Your task to perform on an android device: delete the emails in spam in the gmail app Image 0: 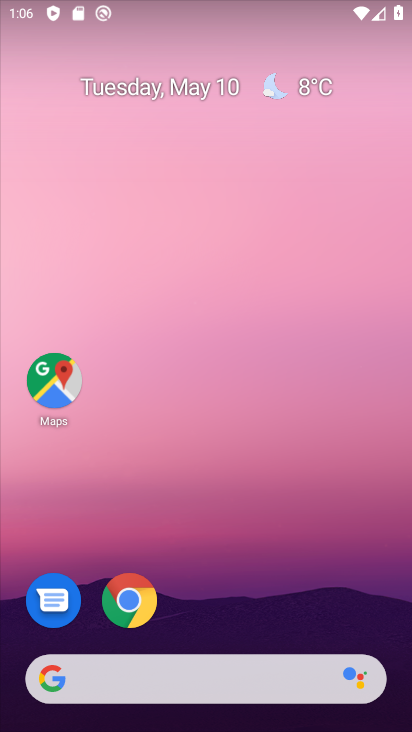
Step 0: drag from (219, 625) to (226, 106)
Your task to perform on an android device: delete the emails in spam in the gmail app Image 1: 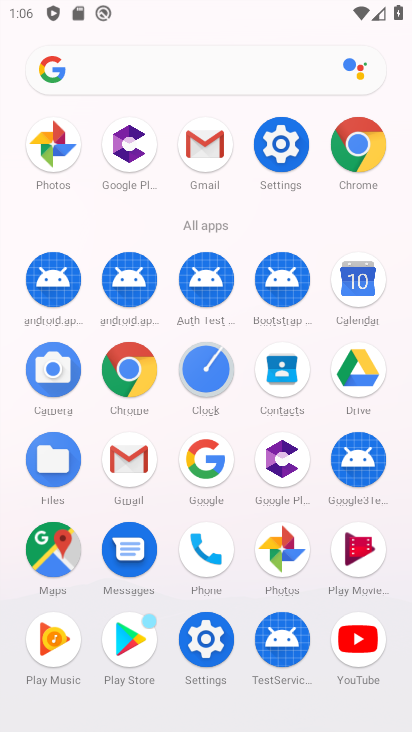
Step 1: click (213, 131)
Your task to perform on an android device: delete the emails in spam in the gmail app Image 2: 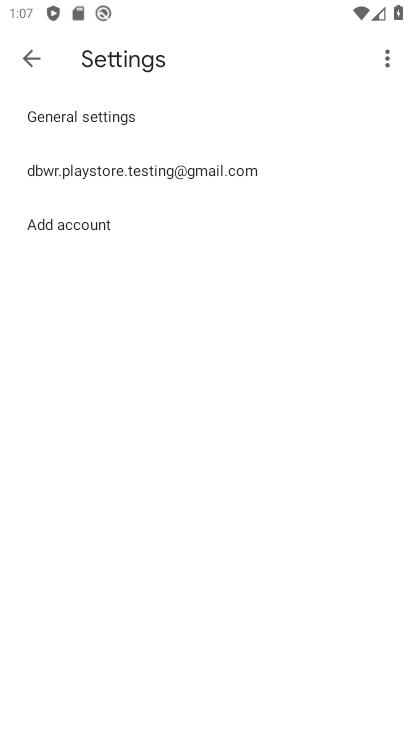
Step 2: click (34, 61)
Your task to perform on an android device: delete the emails in spam in the gmail app Image 3: 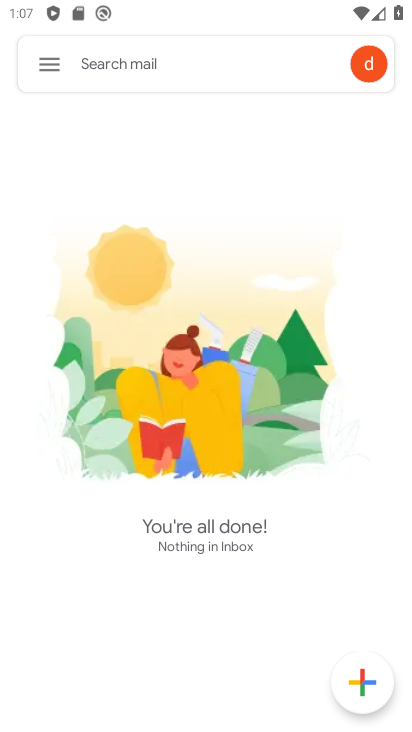
Step 3: click (50, 58)
Your task to perform on an android device: delete the emails in spam in the gmail app Image 4: 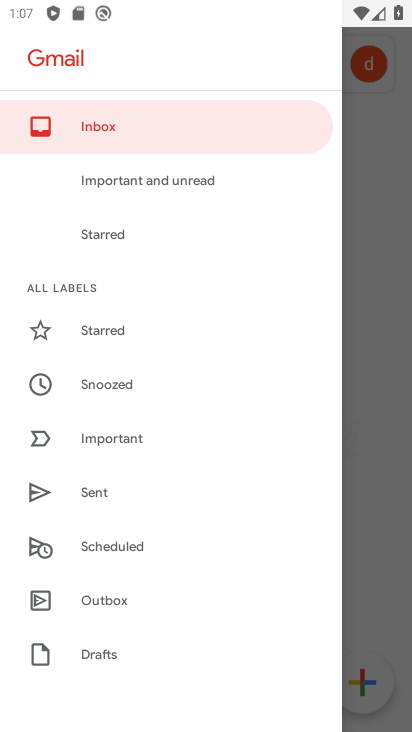
Step 4: drag from (176, 622) to (196, 425)
Your task to perform on an android device: delete the emails in spam in the gmail app Image 5: 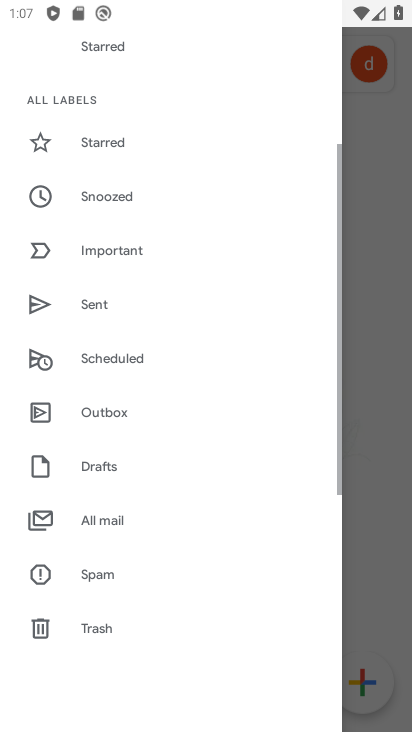
Step 5: drag from (198, 253) to (199, 211)
Your task to perform on an android device: delete the emails in spam in the gmail app Image 6: 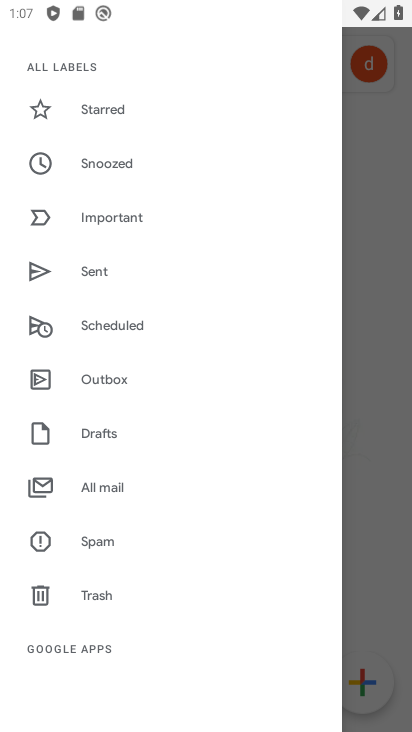
Step 6: click (135, 485)
Your task to perform on an android device: delete the emails in spam in the gmail app Image 7: 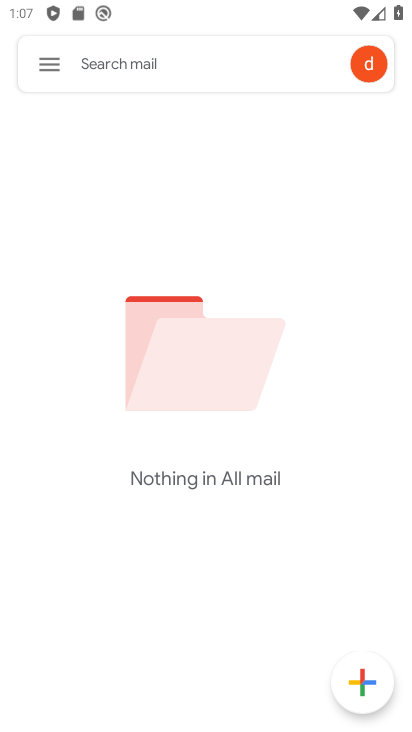
Step 7: task complete